Your task to perform on an android device: Open ESPN.com Image 0: 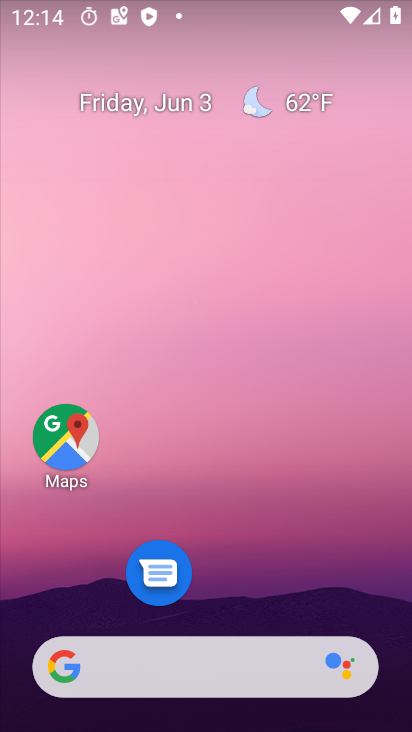
Step 0: drag from (302, 594) to (363, 143)
Your task to perform on an android device: Open ESPN.com Image 1: 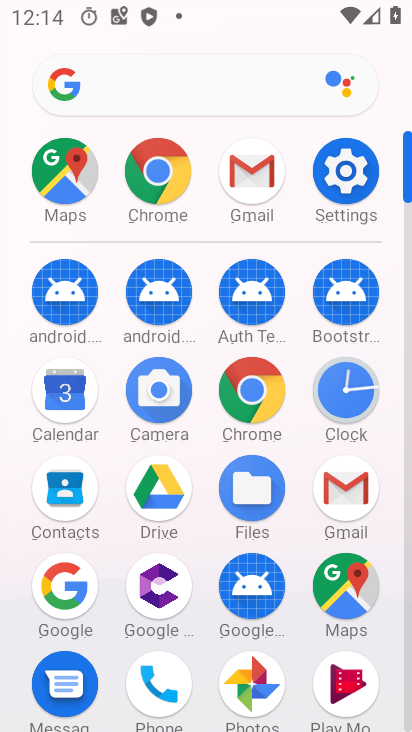
Step 1: click (250, 391)
Your task to perform on an android device: Open ESPN.com Image 2: 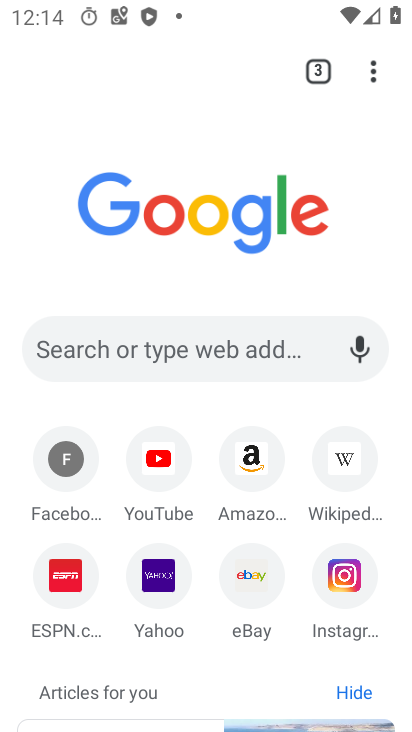
Step 2: click (68, 557)
Your task to perform on an android device: Open ESPN.com Image 3: 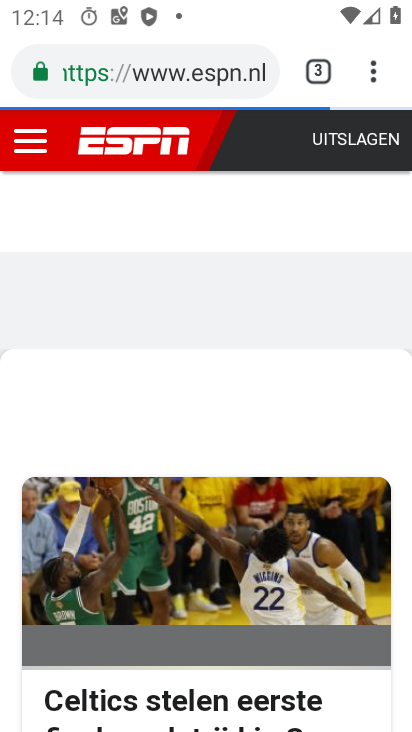
Step 3: task complete